Your task to perform on an android device: move an email to a new category in the gmail app Image 0: 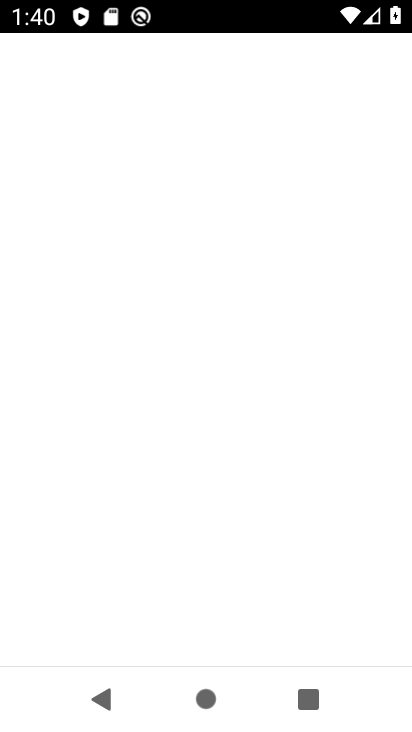
Step 0: click (138, 637)
Your task to perform on an android device: move an email to a new category in the gmail app Image 1: 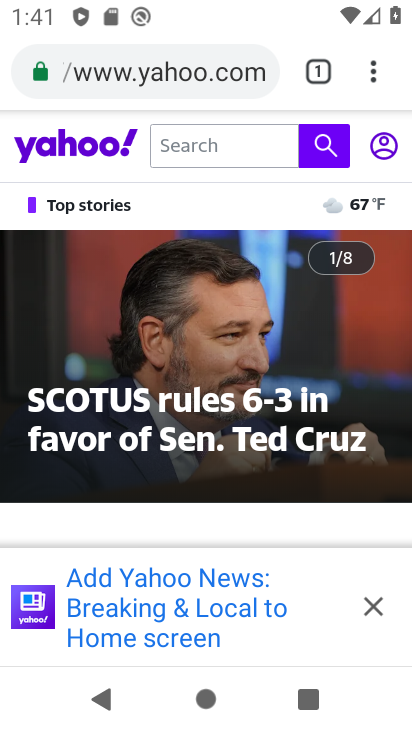
Step 1: press home button
Your task to perform on an android device: move an email to a new category in the gmail app Image 2: 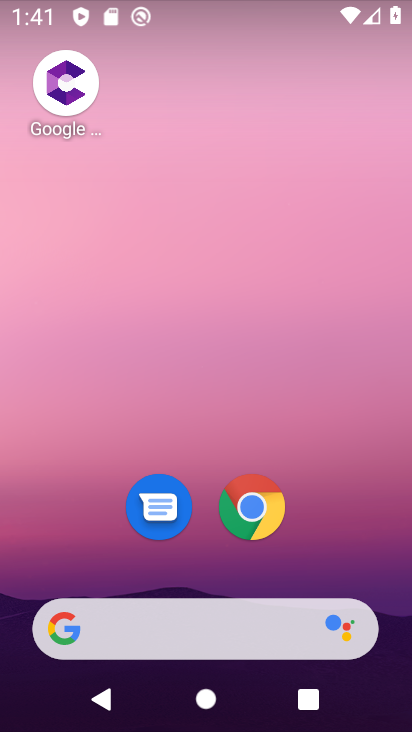
Step 2: drag from (190, 543) to (257, 71)
Your task to perform on an android device: move an email to a new category in the gmail app Image 3: 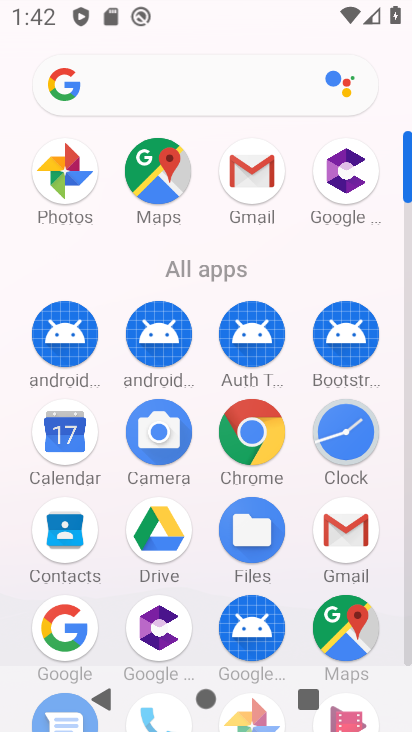
Step 3: click (244, 158)
Your task to perform on an android device: move an email to a new category in the gmail app Image 4: 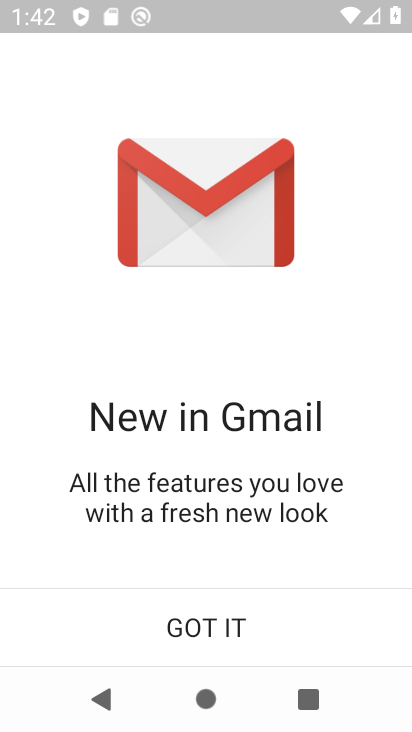
Step 4: click (231, 607)
Your task to perform on an android device: move an email to a new category in the gmail app Image 5: 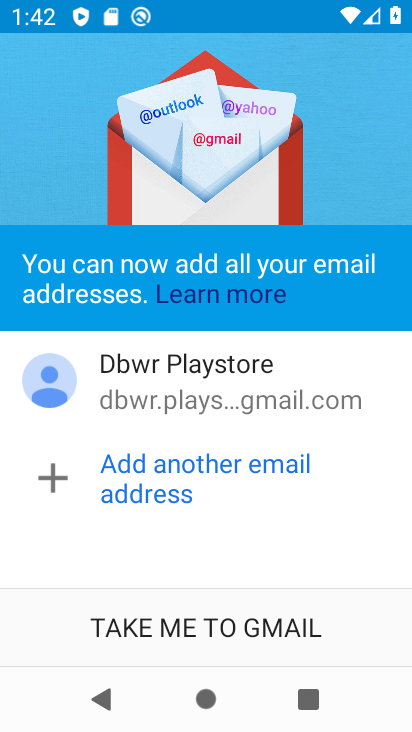
Step 5: click (231, 607)
Your task to perform on an android device: move an email to a new category in the gmail app Image 6: 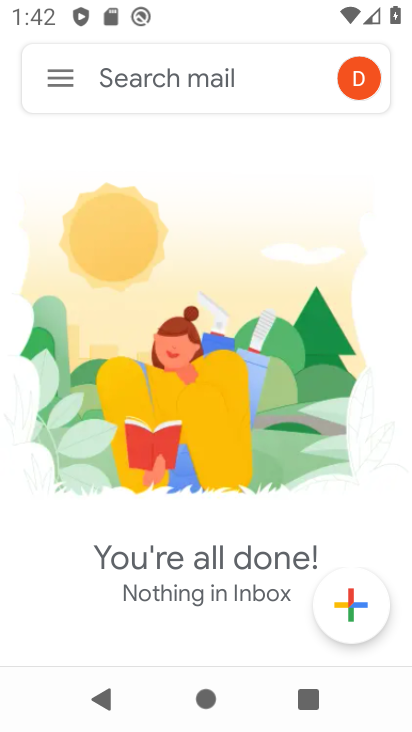
Step 6: task complete